Your task to perform on an android device: Check the news Image 0: 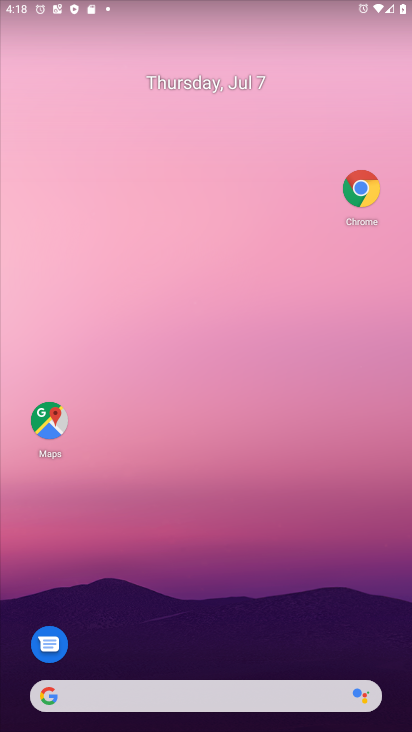
Step 0: click (338, 189)
Your task to perform on an android device: Check the news Image 1: 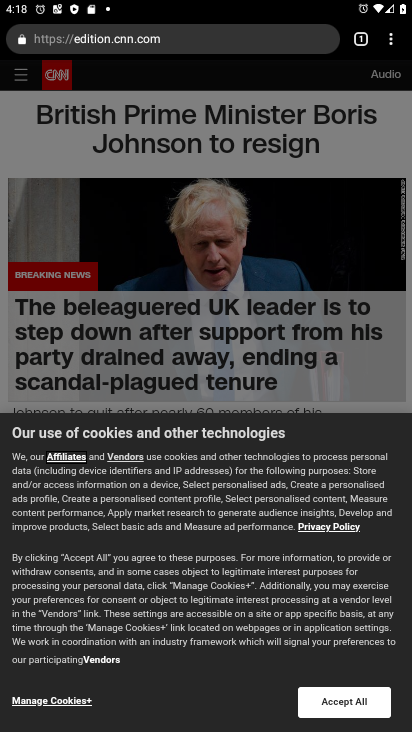
Step 1: click (264, 48)
Your task to perform on an android device: Check the news Image 2: 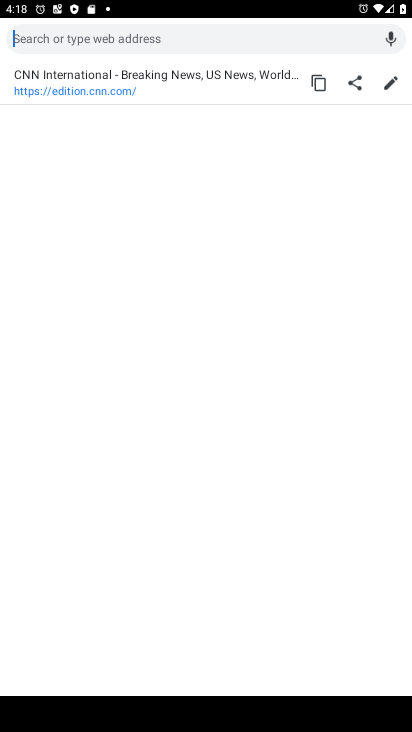
Step 2: type " news"
Your task to perform on an android device: Check the news Image 3: 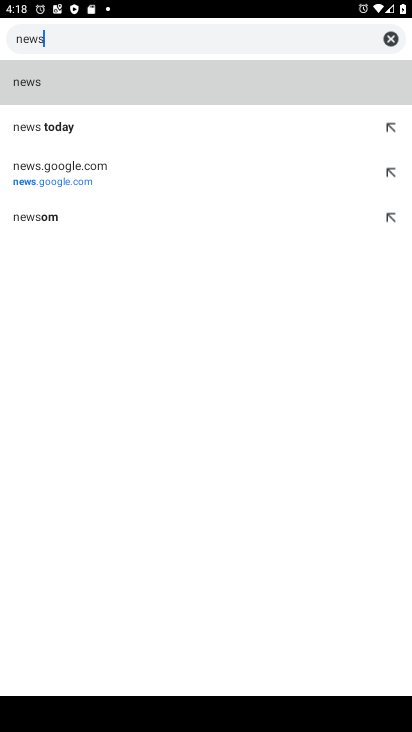
Step 3: type ""
Your task to perform on an android device: Check the news Image 4: 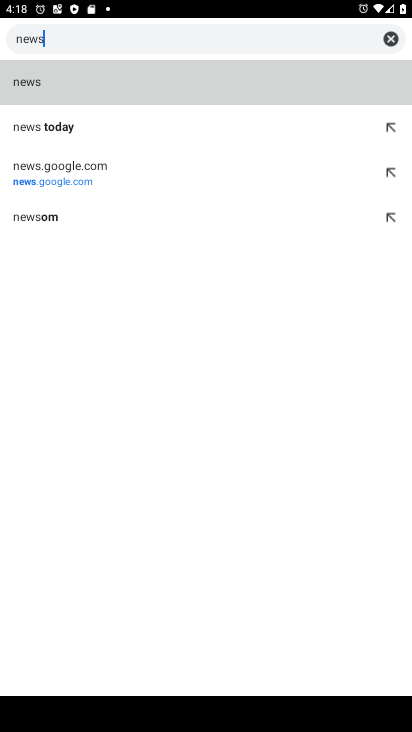
Step 4: click (252, 74)
Your task to perform on an android device: Check the news Image 5: 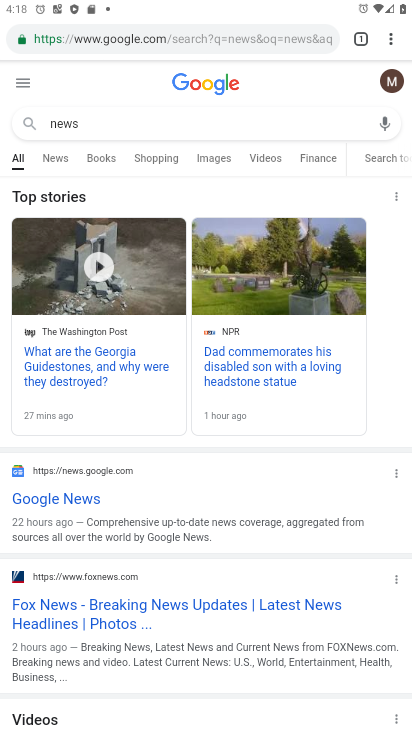
Step 5: task complete